Your task to perform on an android device: Find coffee shops on Maps Image 0: 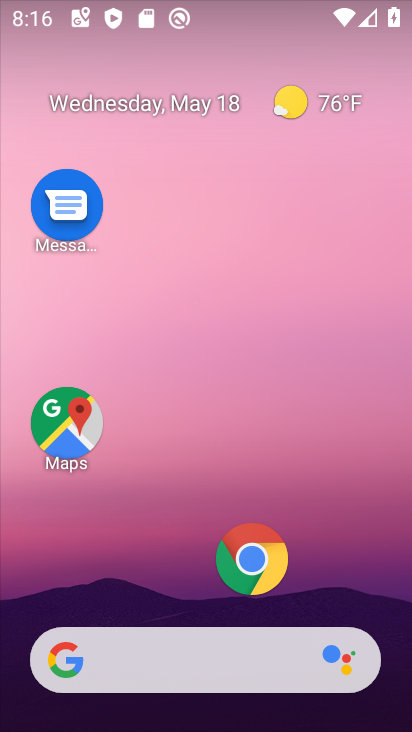
Step 0: click (75, 438)
Your task to perform on an android device: Find coffee shops on Maps Image 1: 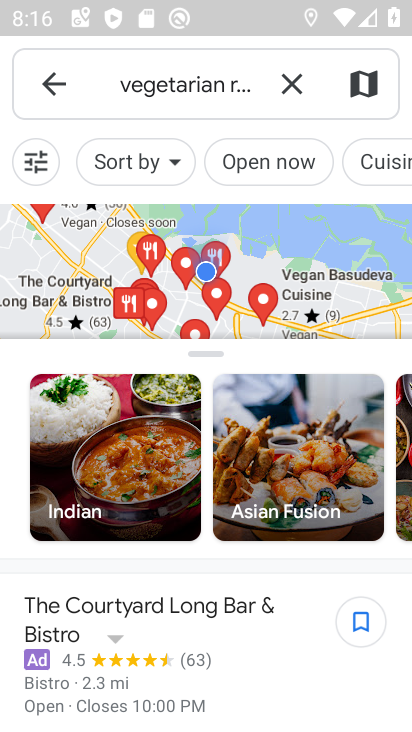
Step 1: click (286, 83)
Your task to perform on an android device: Find coffee shops on Maps Image 2: 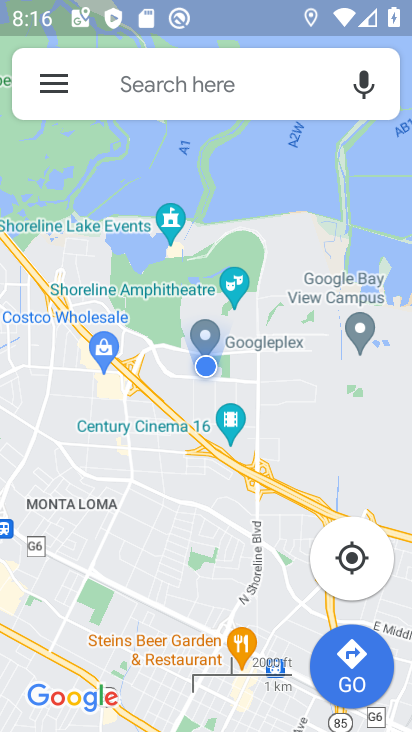
Step 2: click (248, 85)
Your task to perform on an android device: Find coffee shops on Maps Image 3: 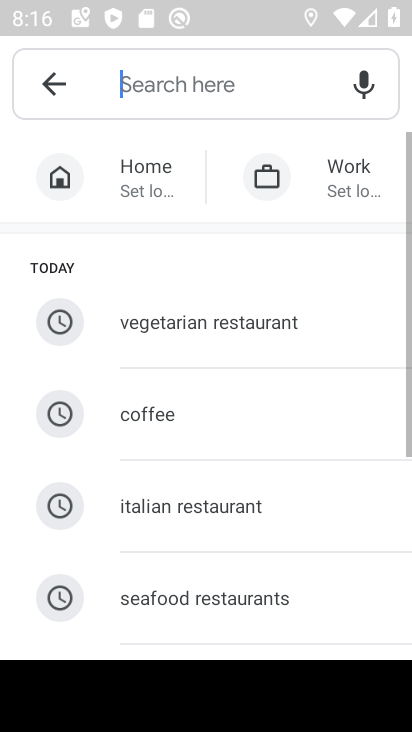
Step 3: click (204, 421)
Your task to perform on an android device: Find coffee shops on Maps Image 4: 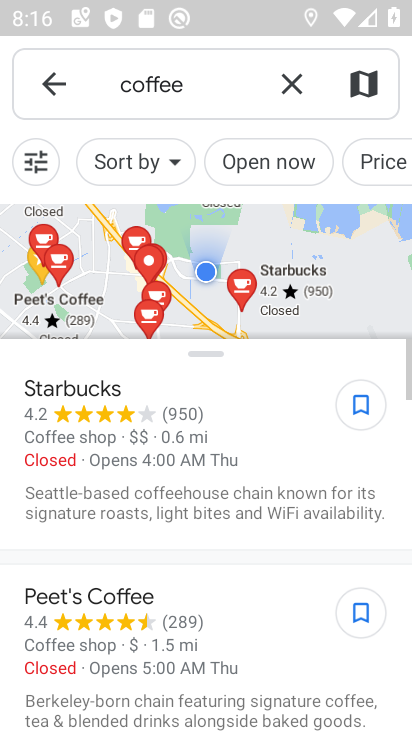
Step 4: task complete